Your task to perform on an android device: Go to Maps Image 0: 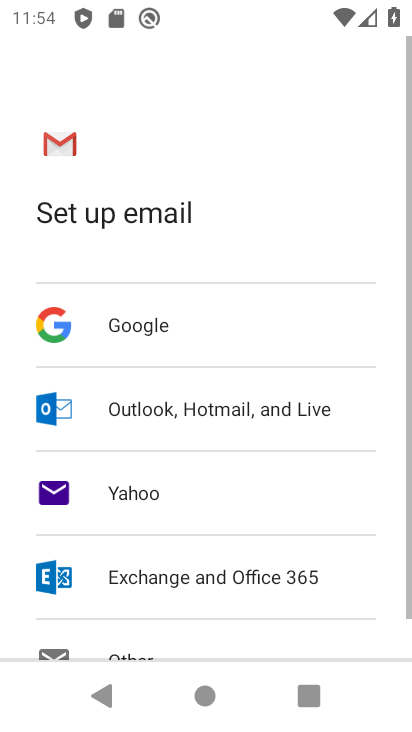
Step 0: press home button
Your task to perform on an android device: Go to Maps Image 1: 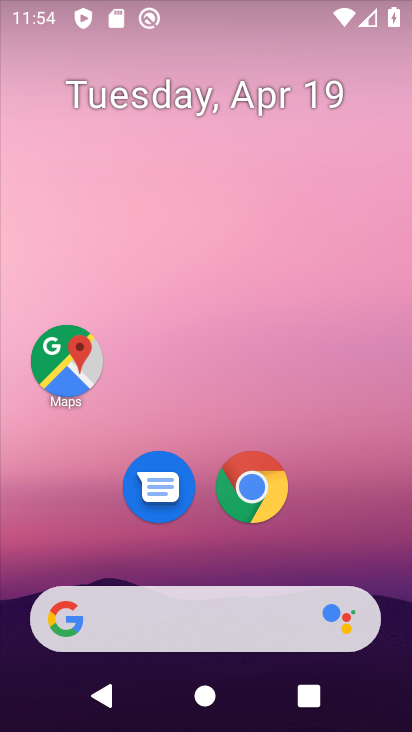
Step 1: drag from (336, 566) to (239, 107)
Your task to perform on an android device: Go to Maps Image 2: 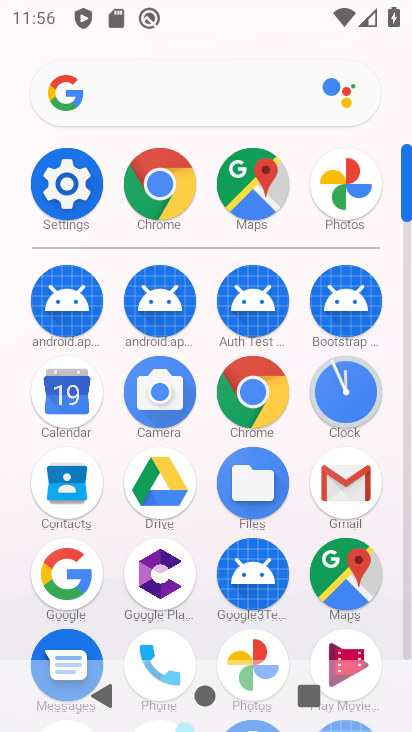
Step 2: click (332, 567)
Your task to perform on an android device: Go to Maps Image 3: 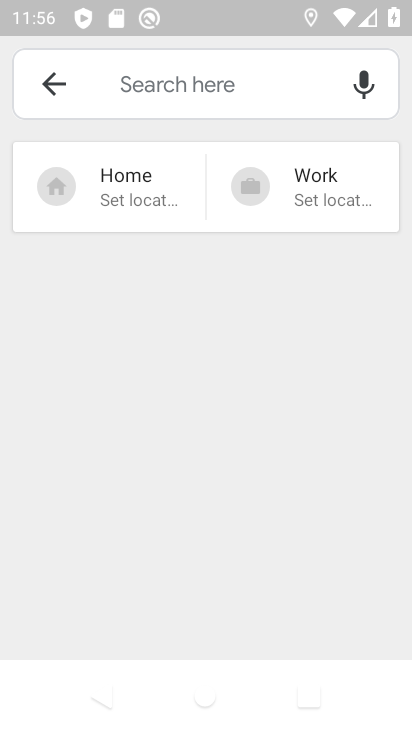
Step 3: task complete